Your task to perform on an android device: Is it going to rain this weekend? Image 0: 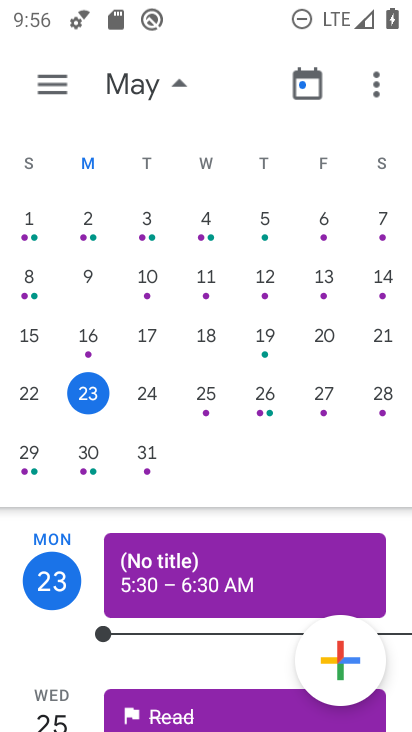
Step 0: press home button
Your task to perform on an android device: Is it going to rain this weekend? Image 1: 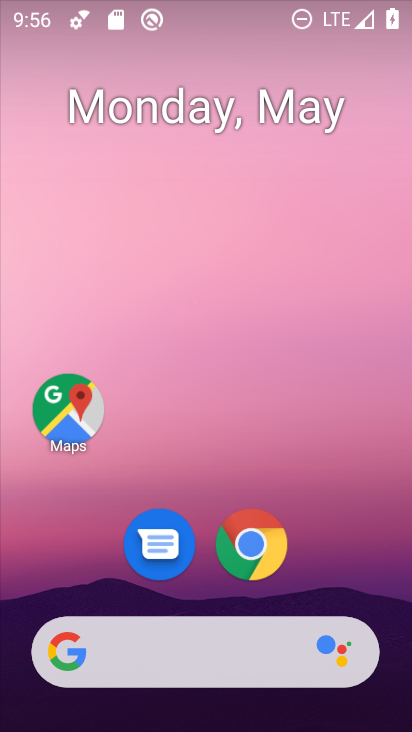
Step 1: drag from (388, 614) to (334, 149)
Your task to perform on an android device: Is it going to rain this weekend? Image 2: 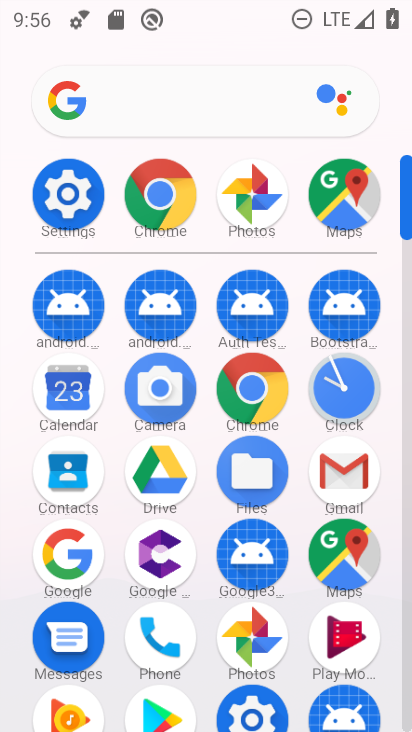
Step 2: click (258, 406)
Your task to perform on an android device: Is it going to rain this weekend? Image 3: 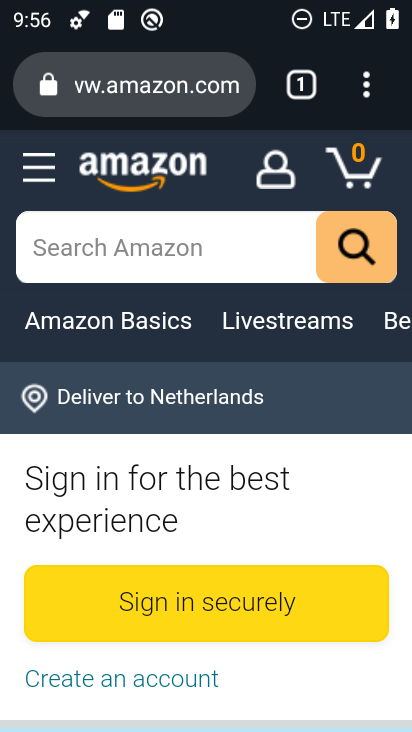
Step 3: click (156, 74)
Your task to perform on an android device: Is it going to rain this weekend? Image 4: 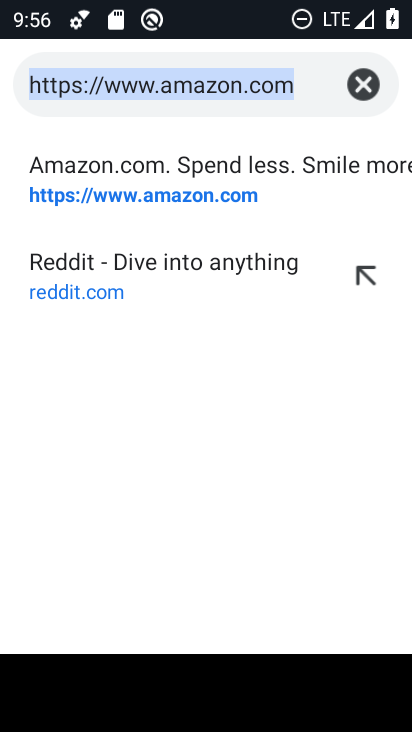
Step 4: click (363, 82)
Your task to perform on an android device: Is it going to rain this weekend? Image 5: 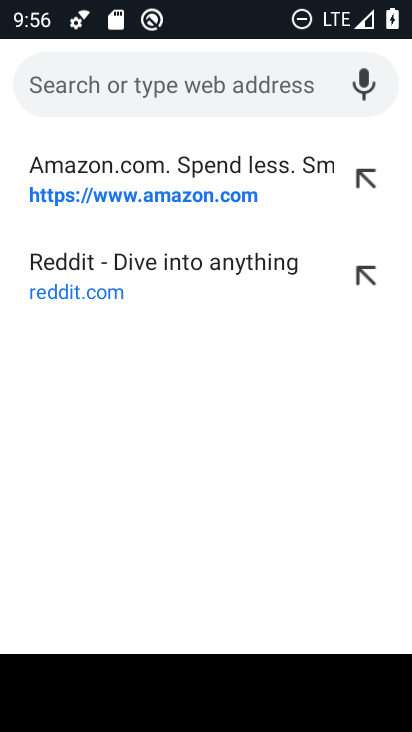
Step 5: type "is it going to rain this weekend "
Your task to perform on an android device: Is it going to rain this weekend? Image 6: 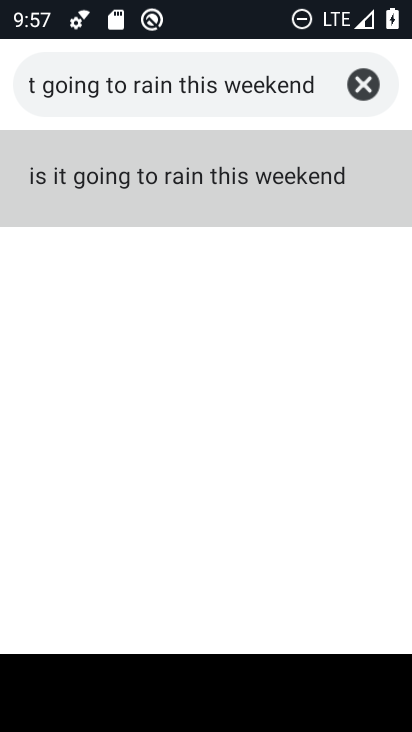
Step 6: click (172, 192)
Your task to perform on an android device: Is it going to rain this weekend? Image 7: 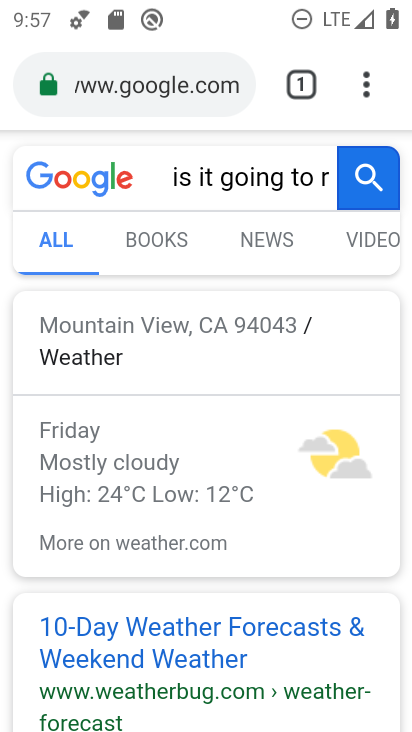
Step 7: task complete